Your task to perform on an android device: all mails in gmail Image 0: 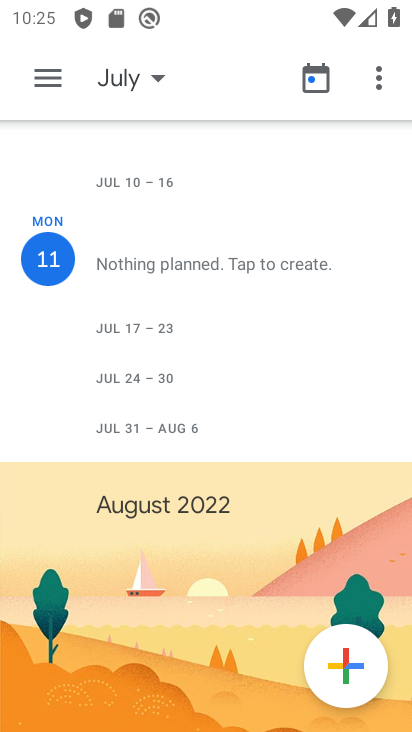
Step 0: press home button
Your task to perform on an android device: all mails in gmail Image 1: 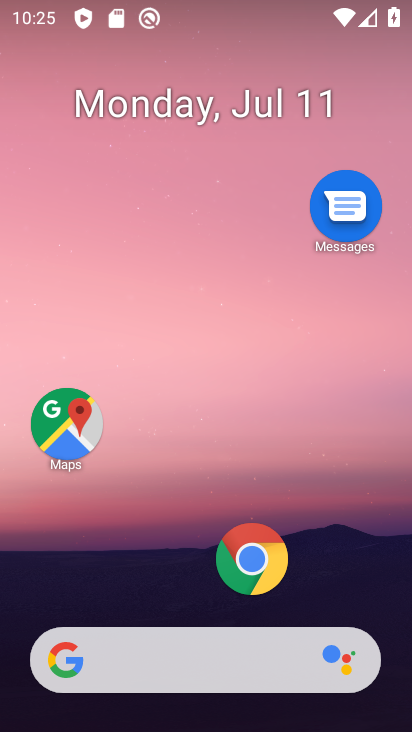
Step 1: drag from (368, 565) to (357, 228)
Your task to perform on an android device: all mails in gmail Image 2: 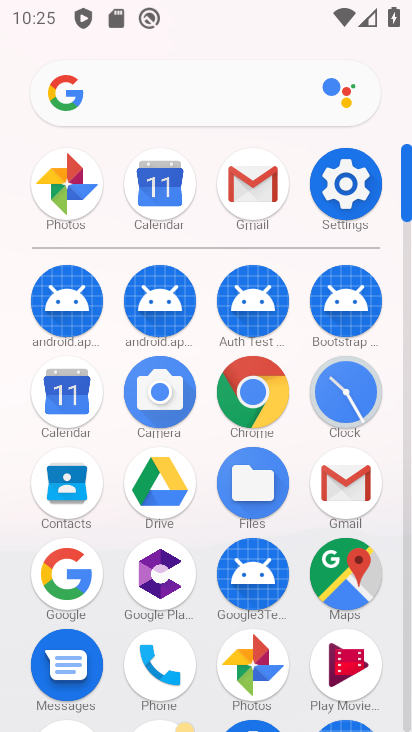
Step 2: click (344, 490)
Your task to perform on an android device: all mails in gmail Image 3: 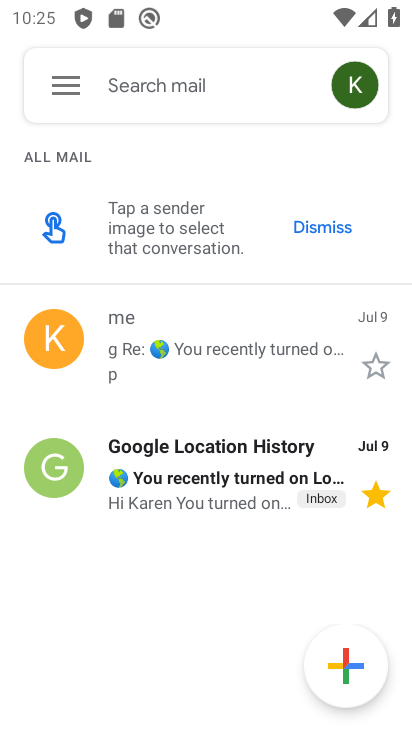
Step 3: task complete